Your task to perform on an android device: Open maps Image 0: 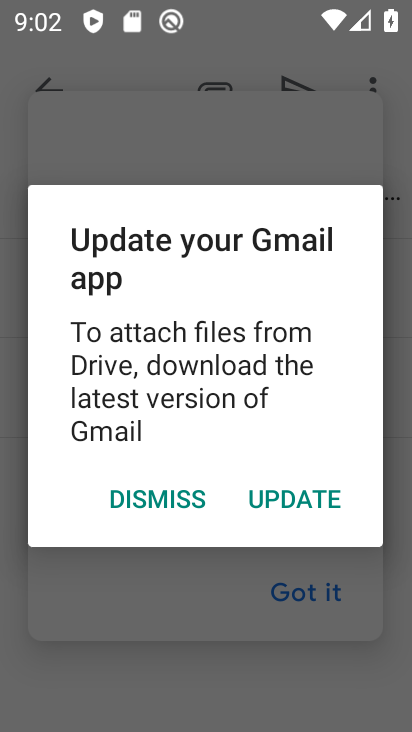
Step 0: press home button
Your task to perform on an android device: Open maps Image 1: 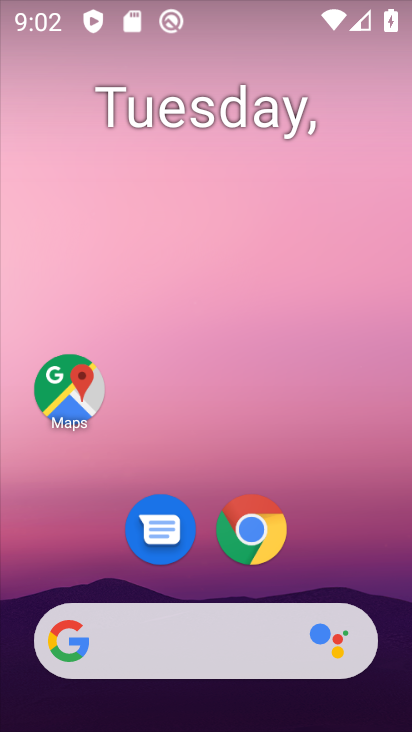
Step 1: drag from (352, 300) to (362, 63)
Your task to perform on an android device: Open maps Image 2: 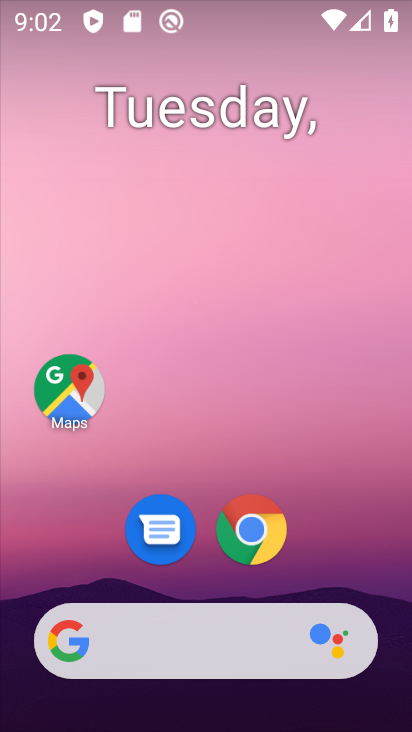
Step 2: drag from (380, 593) to (370, 61)
Your task to perform on an android device: Open maps Image 3: 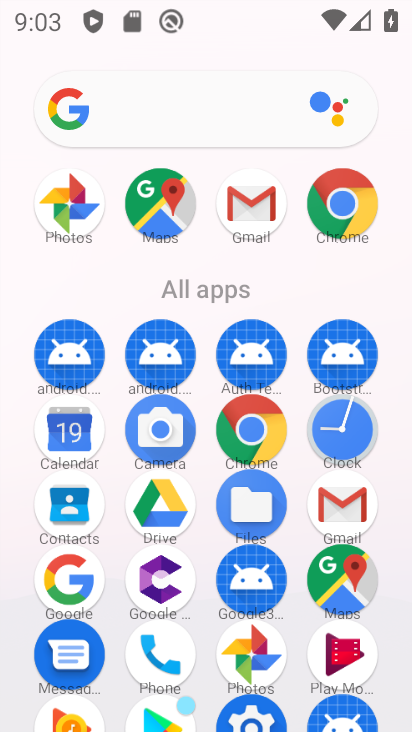
Step 3: click (370, 597)
Your task to perform on an android device: Open maps Image 4: 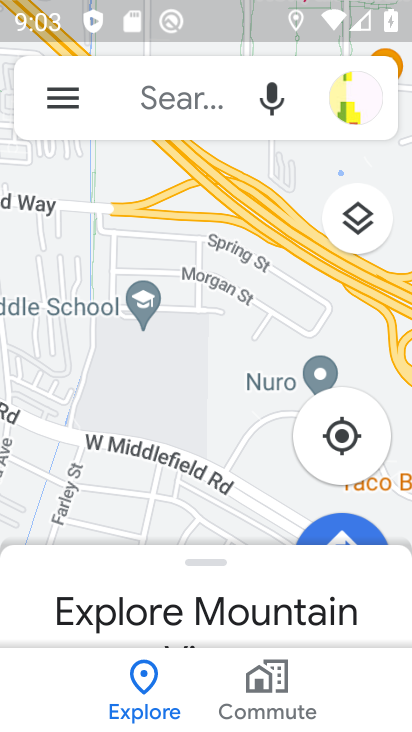
Step 4: task complete